Your task to perform on an android device: Turn on the flashlight Image 0: 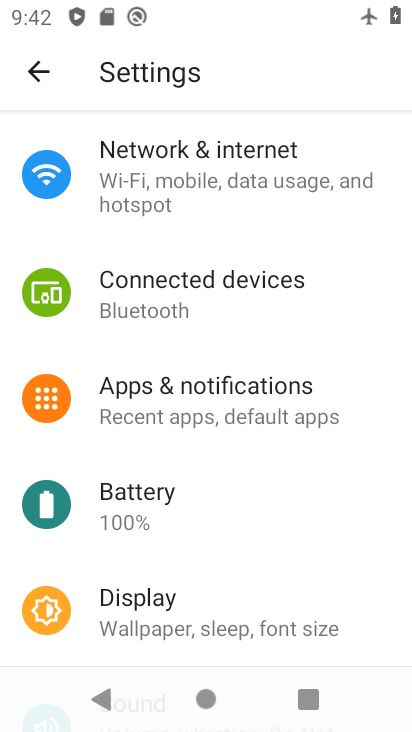
Step 0: drag from (204, 583) to (216, 202)
Your task to perform on an android device: Turn on the flashlight Image 1: 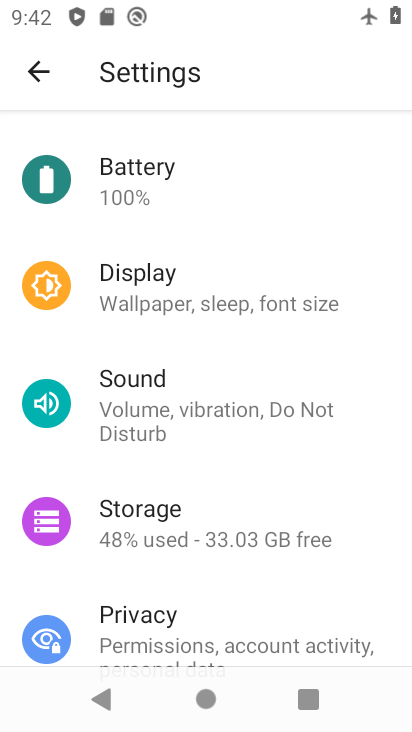
Step 1: task complete